Your task to perform on an android device: Open settings on Google Maps Image 0: 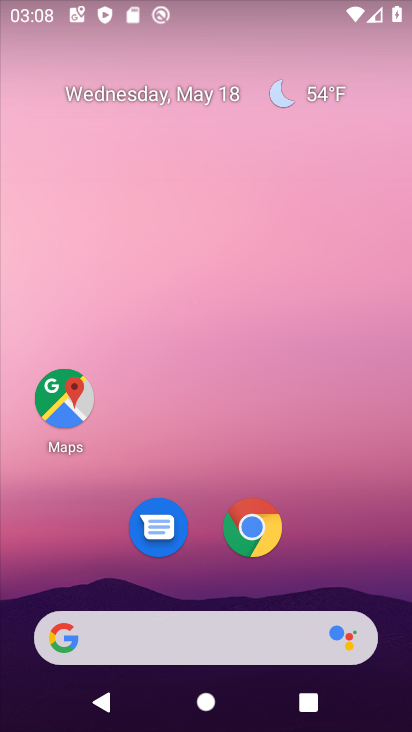
Step 0: drag from (226, 633) to (200, 21)
Your task to perform on an android device: Open settings on Google Maps Image 1: 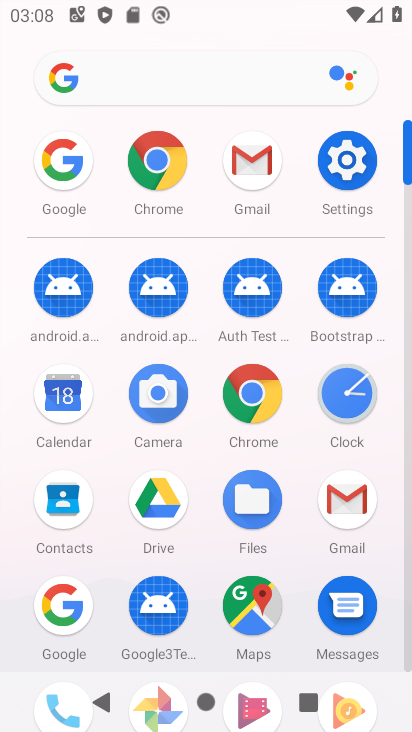
Step 1: click (332, 141)
Your task to perform on an android device: Open settings on Google Maps Image 2: 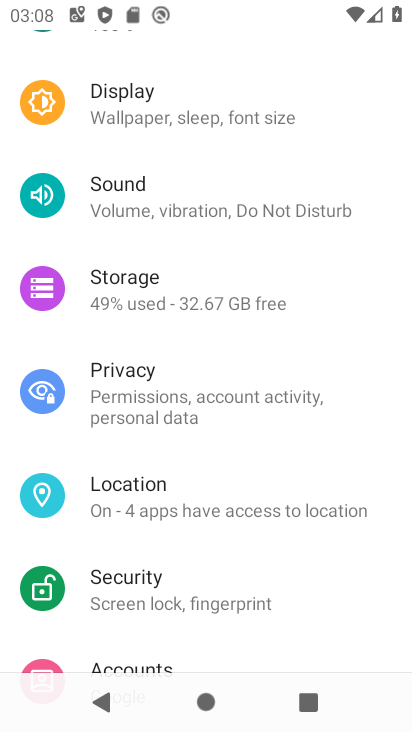
Step 2: press home button
Your task to perform on an android device: Open settings on Google Maps Image 3: 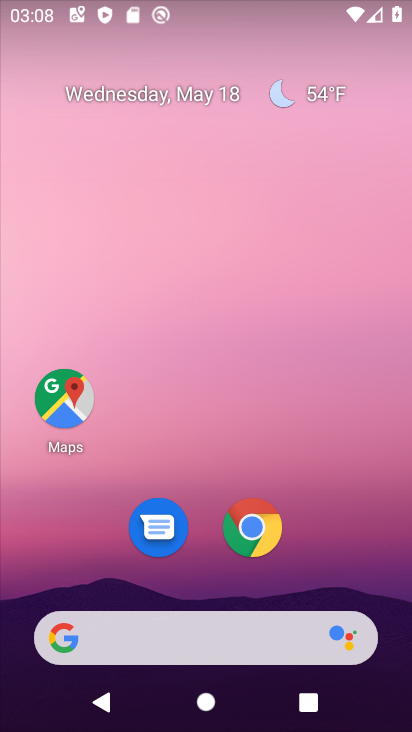
Step 3: drag from (186, 577) to (180, 1)
Your task to perform on an android device: Open settings on Google Maps Image 4: 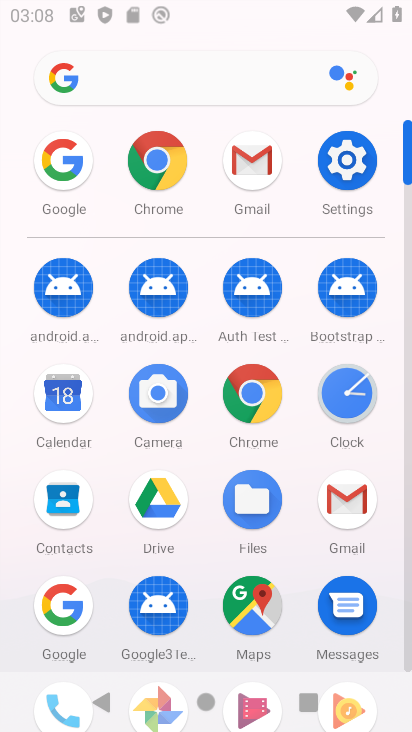
Step 4: click (254, 593)
Your task to perform on an android device: Open settings on Google Maps Image 5: 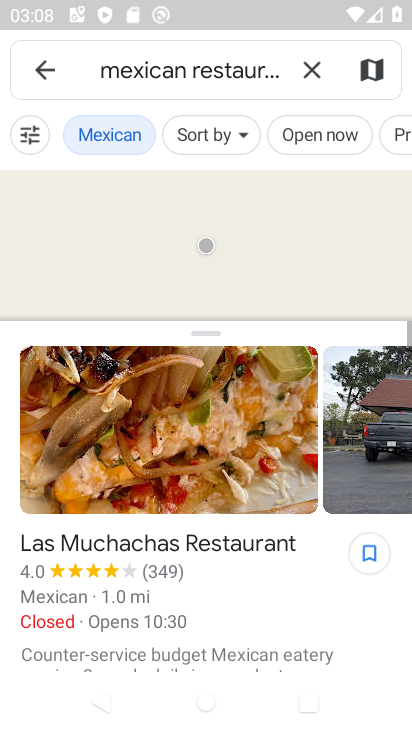
Step 5: click (50, 64)
Your task to perform on an android device: Open settings on Google Maps Image 6: 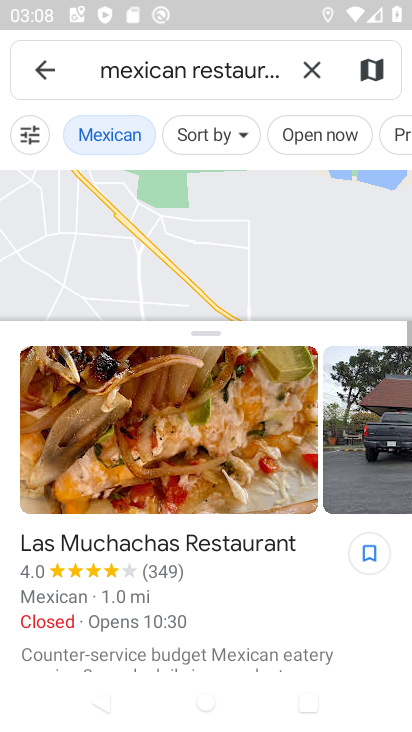
Step 6: click (56, 64)
Your task to perform on an android device: Open settings on Google Maps Image 7: 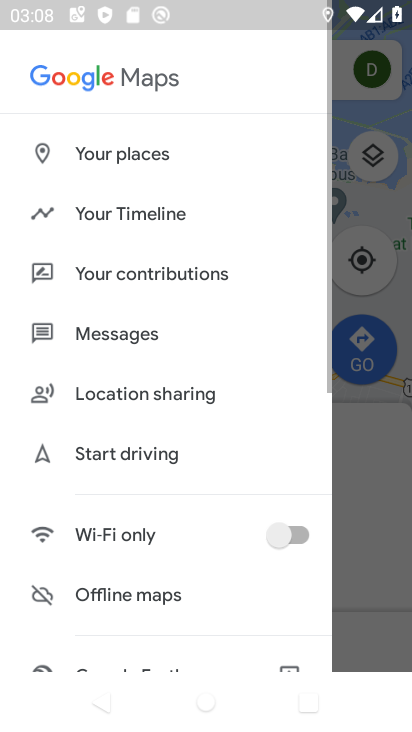
Step 7: click (31, 64)
Your task to perform on an android device: Open settings on Google Maps Image 8: 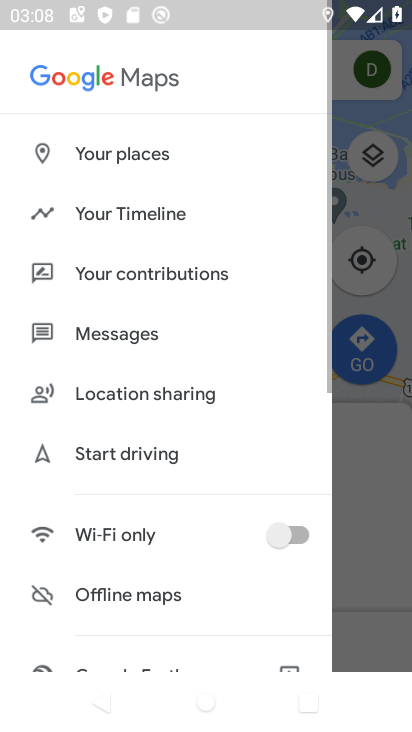
Step 8: drag from (31, 64) to (110, 20)
Your task to perform on an android device: Open settings on Google Maps Image 9: 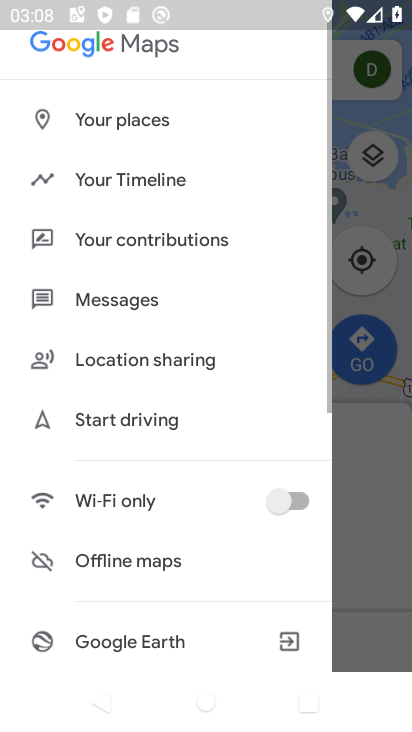
Step 9: drag from (139, 443) to (78, 5)
Your task to perform on an android device: Open settings on Google Maps Image 10: 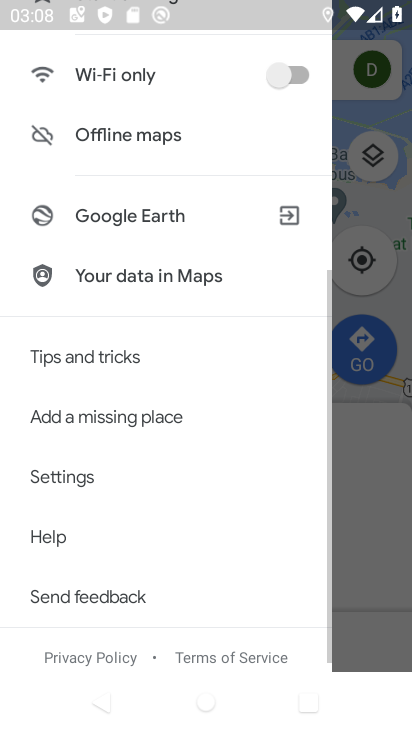
Step 10: click (97, 464)
Your task to perform on an android device: Open settings on Google Maps Image 11: 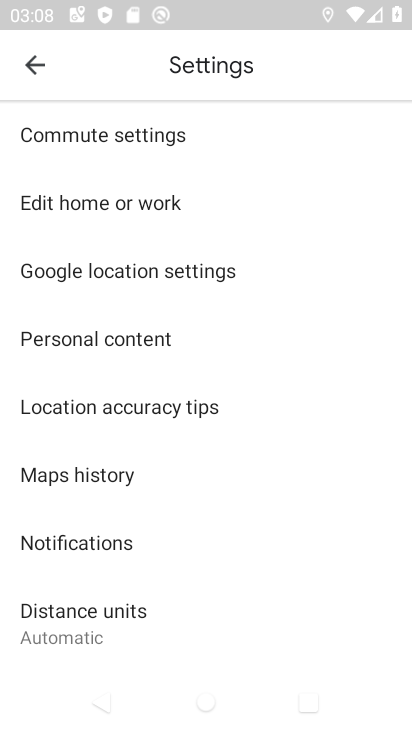
Step 11: task complete